Your task to perform on an android device: Open battery settings Image 0: 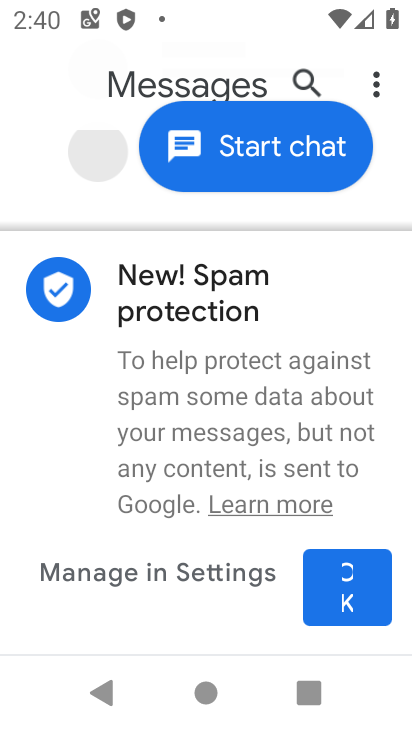
Step 0: press home button
Your task to perform on an android device: Open battery settings Image 1: 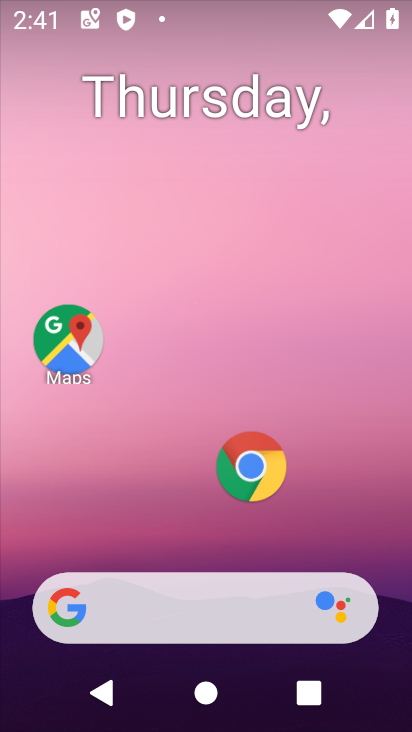
Step 1: drag from (202, 549) to (225, 171)
Your task to perform on an android device: Open battery settings Image 2: 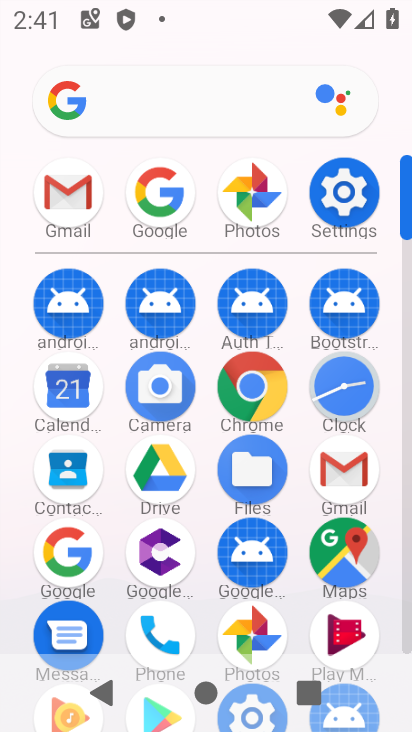
Step 2: click (351, 203)
Your task to perform on an android device: Open battery settings Image 3: 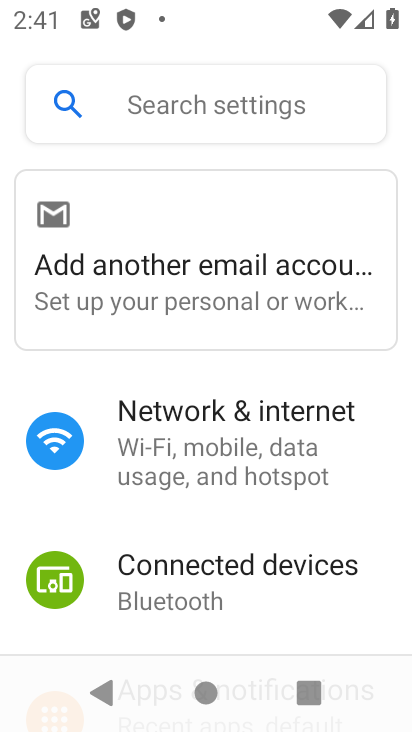
Step 3: drag from (251, 544) to (271, 211)
Your task to perform on an android device: Open battery settings Image 4: 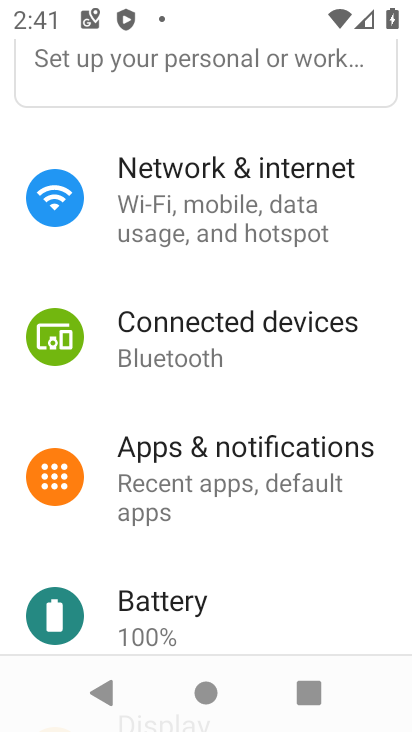
Step 4: click (179, 610)
Your task to perform on an android device: Open battery settings Image 5: 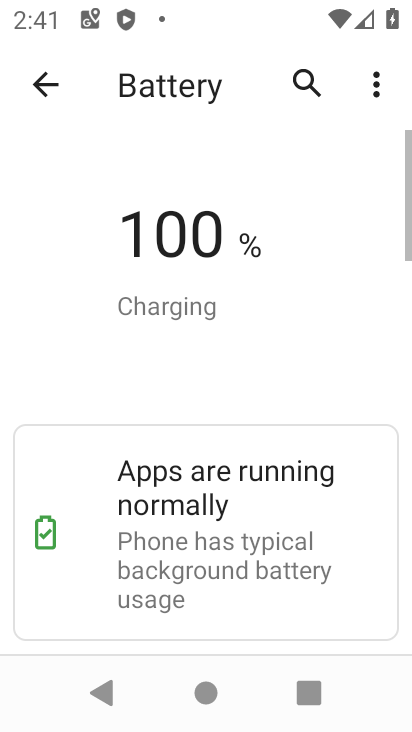
Step 5: task complete